Your task to perform on an android device: Go to Android settings Image 0: 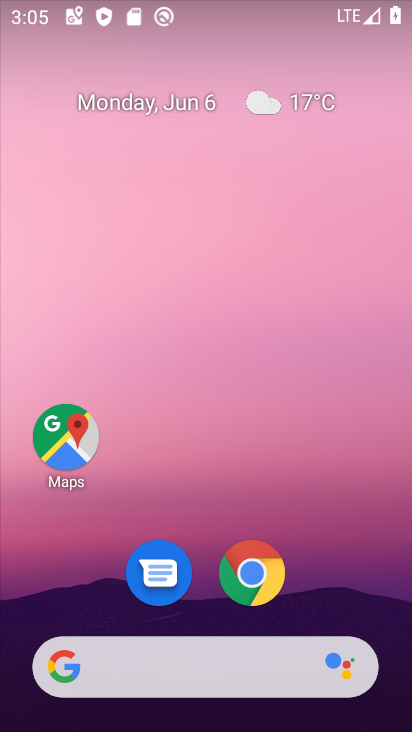
Step 0: drag from (334, 601) to (343, 188)
Your task to perform on an android device: Go to Android settings Image 1: 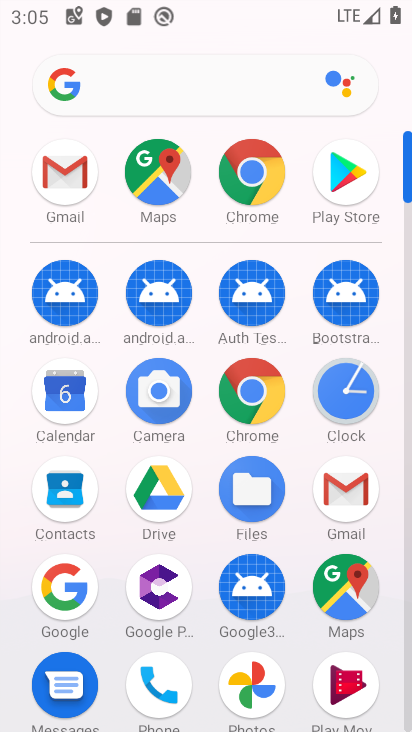
Step 1: drag from (197, 451) to (207, 267)
Your task to perform on an android device: Go to Android settings Image 2: 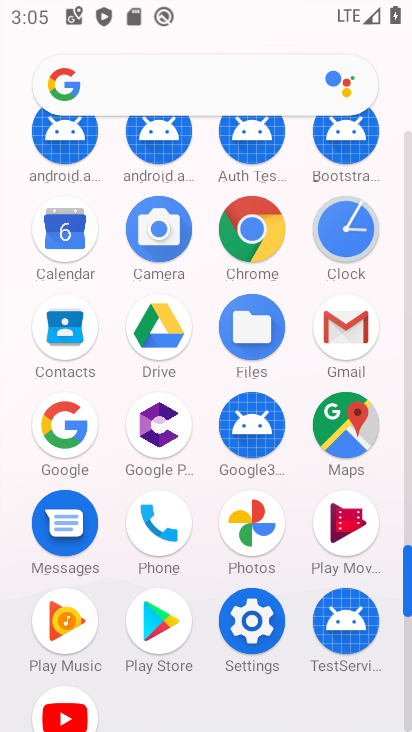
Step 2: click (250, 627)
Your task to perform on an android device: Go to Android settings Image 3: 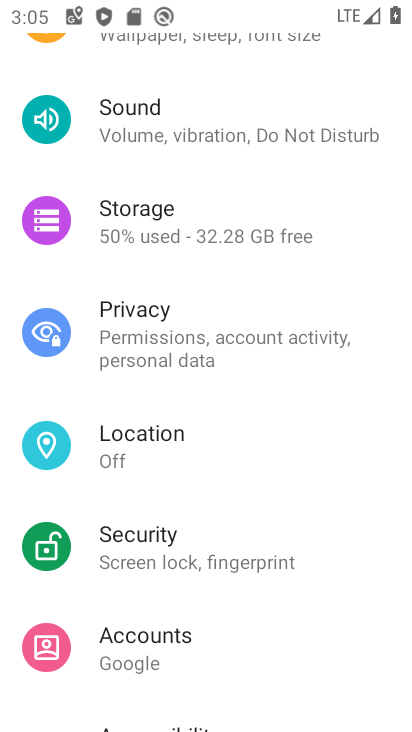
Step 3: drag from (358, 271) to (369, 392)
Your task to perform on an android device: Go to Android settings Image 4: 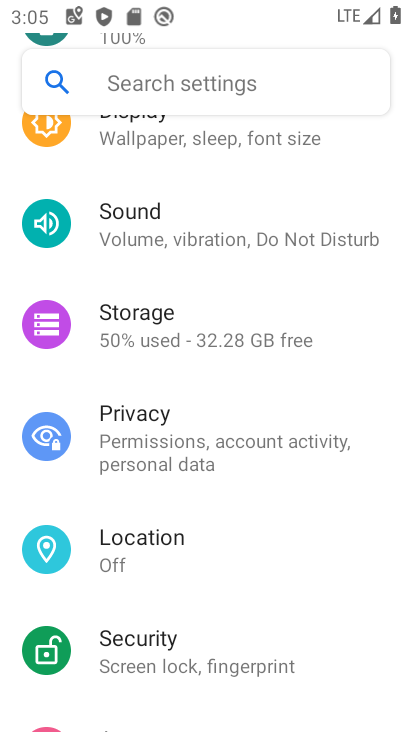
Step 4: drag from (367, 268) to (373, 380)
Your task to perform on an android device: Go to Android settings Image 5: 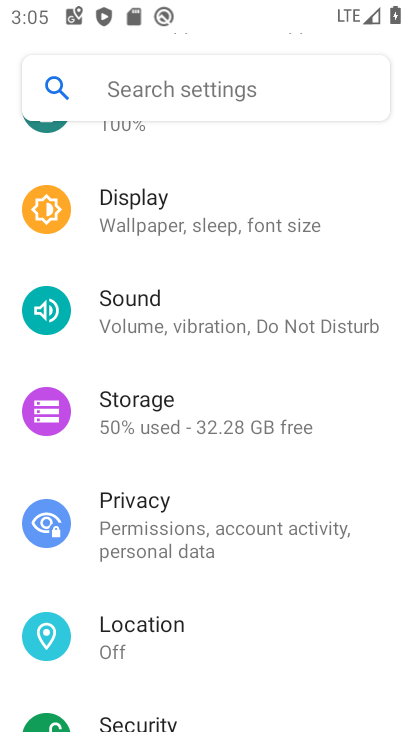
Step 5: drag from (364, 212) to (363, 388)
Your task to perform on an android device: Go to Android settings Image 6: 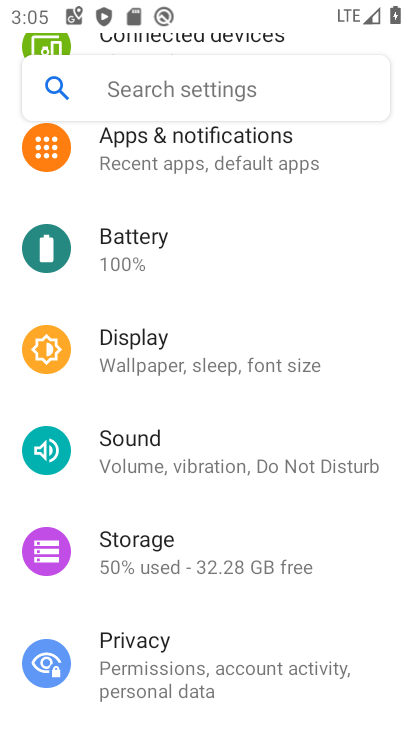
Step 6: drag from (359, 167) to (345, 472)
Your task to perform on an android device: Go to Android settings Image 7: 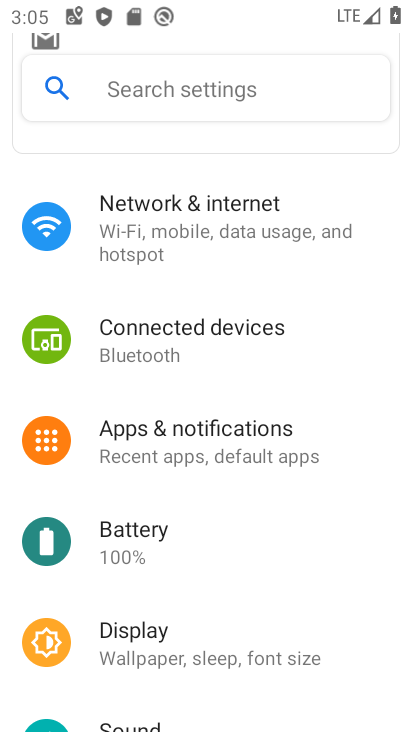
Step 7: drag from (341, 464) to (342, 339)
Your task to perform on an android device: Go to Android settings Image 8: 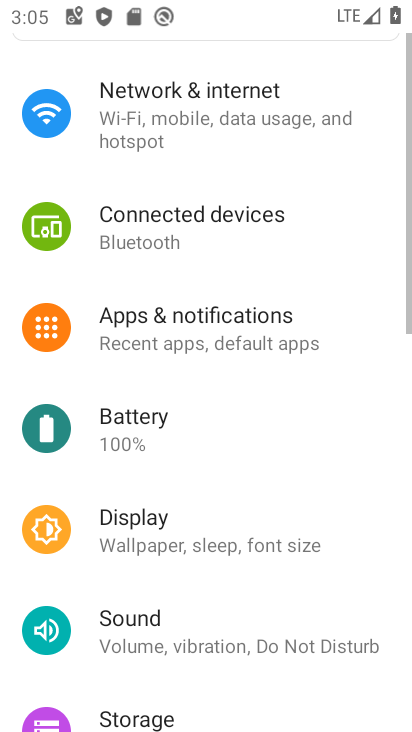
Step 8: drag from (339, 478) to (346, 313)
Your task to perform on an android device: Go to Android settings Image 9: 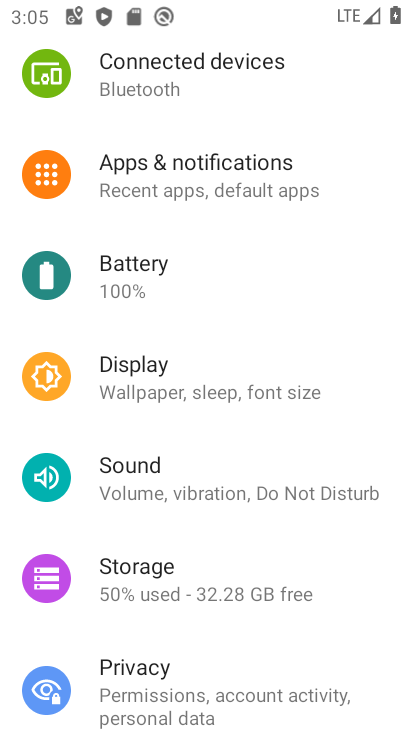
Step 9: drag from (355, 543) to (358, 378)
Your task to perform on an android device: Go to Android settings Image 10: 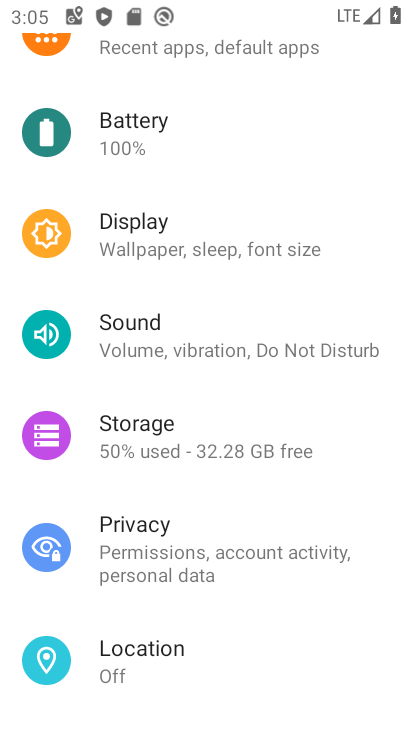
Step 10: drag from (351, 588) to (354, 411)
Your task to perform on an android device: Go to Android settings Image 11: 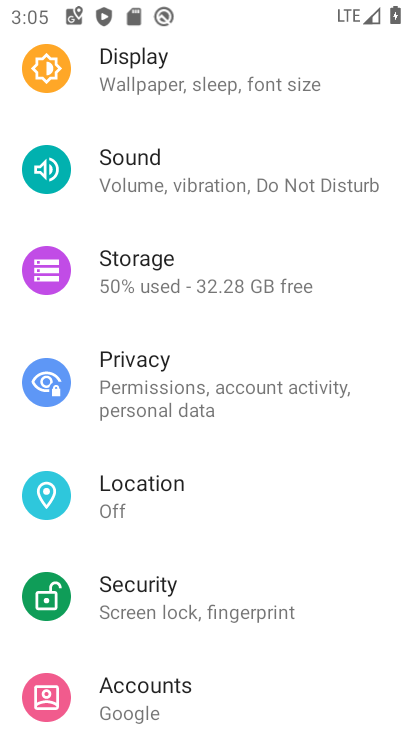
Step 11: drag from (354, 587) to (356, 448)
Your task to perform on an android device: Go to Android settings Image 12: 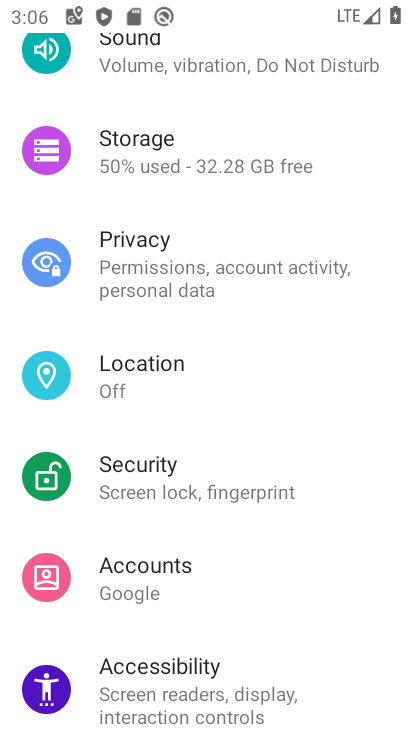
Step 12: drag from (363, 564) to (365, 427)
Your task to perform on an android device: Go to Android settings Image 13: 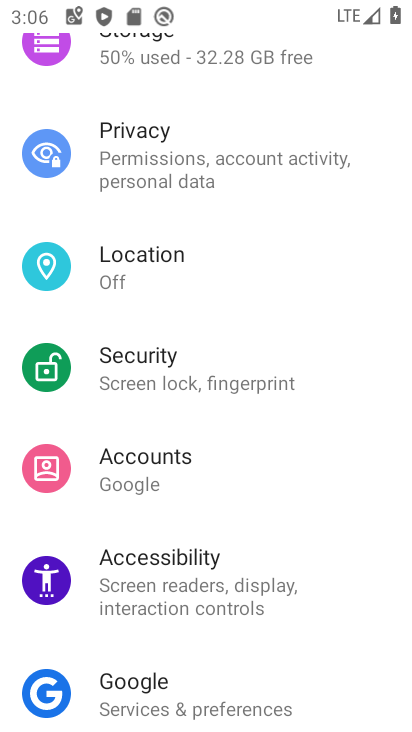
Step 13: drag from (339, 603) to (348, 464)
Your task to perform on an android device: Go to Android settings Image 14: 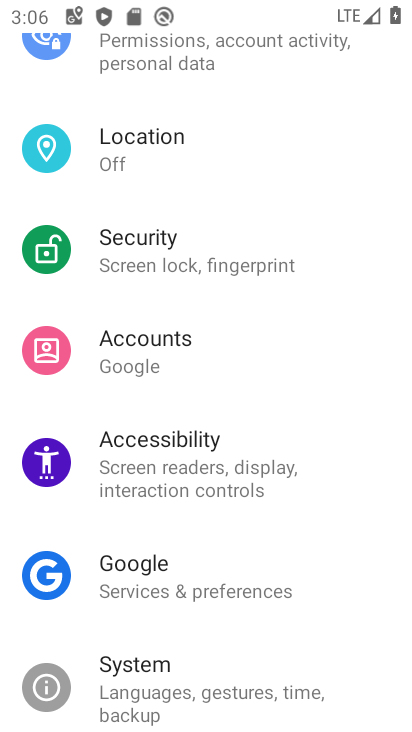
Step 14: click (319, 673)
Your task to perform on an android device: Go to Android settings Image 15: 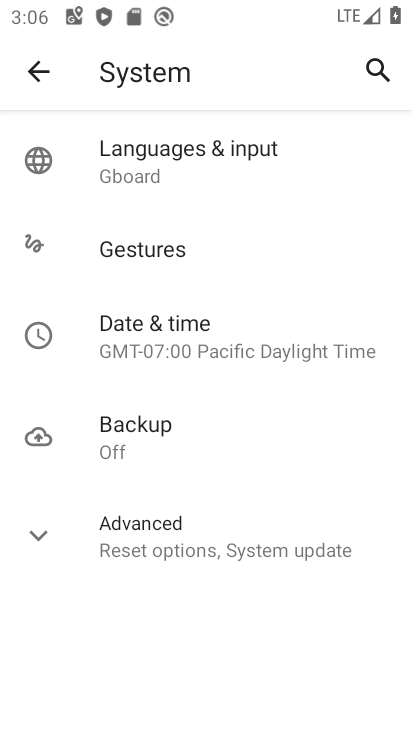
Step 15: click (244, 556)
Your task to perform on an android device: Go to Android settings Image 16: 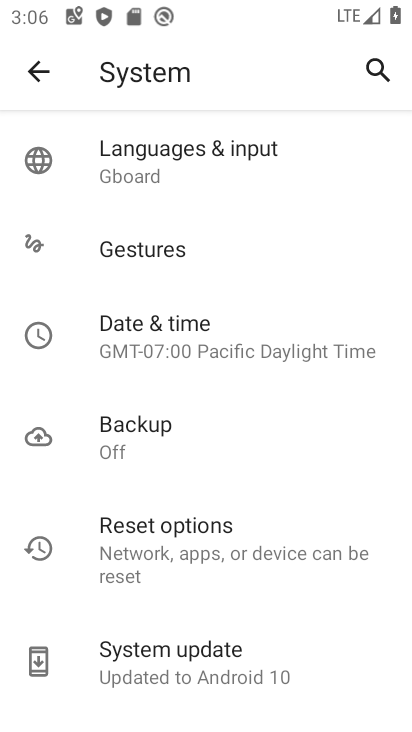
Step 16: task complete